Your task to perform on an android device: Go to ESPN.com Image 0: 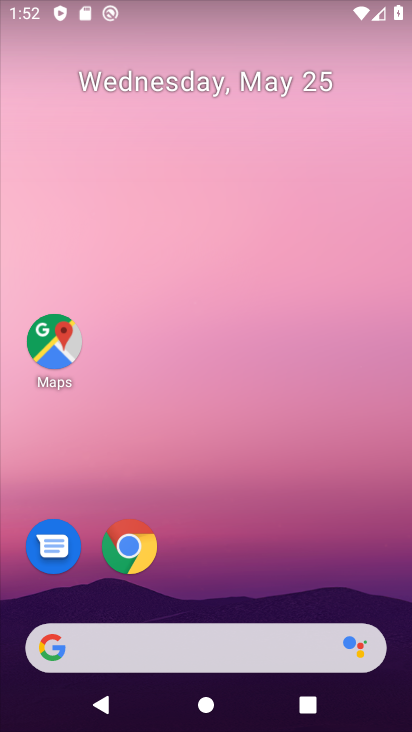
Step 0: click (130, 546)
Your task to perform on an android device: Go to ESPN.com Image 1: 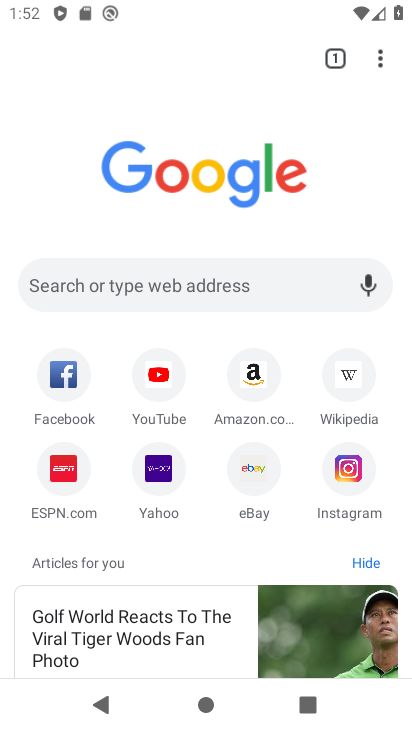
Step 1: click (192, 288)
Your task to perform on an android device: Go to ESPN.com Image 2: 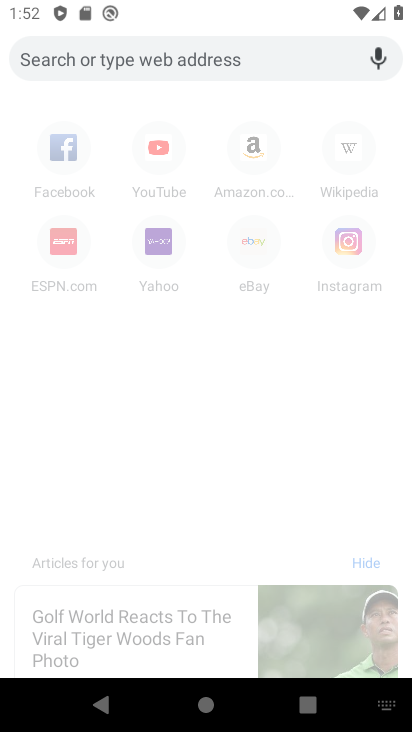
Step 2: type "ESPN.com"
Your task to perform on an android device: Go to ESPN.com Image 3: 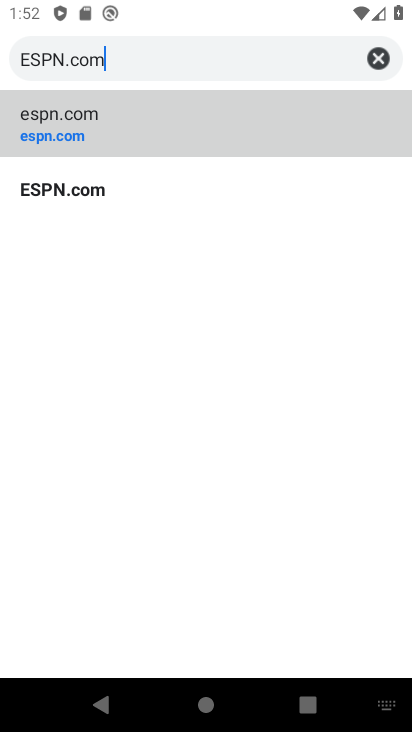
Step 3: type ""
Your task to perform on an android device: Go to ESPN.com Image 4: 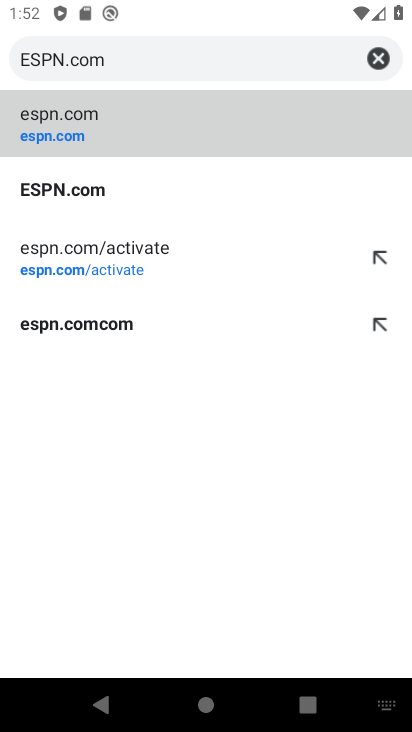
Step 4: click (33, 182)
Your task to perform on an android device: Go to ESPN.com Image 5: 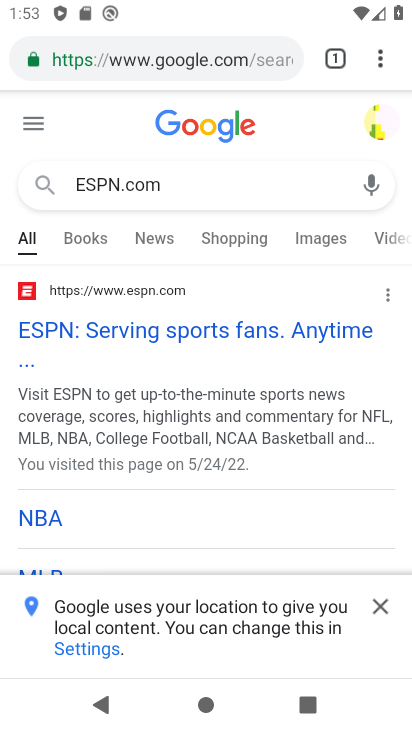
Step 5: click (142, 332)
Your task to perform on an android device: Go to ESPN.com Image 6: 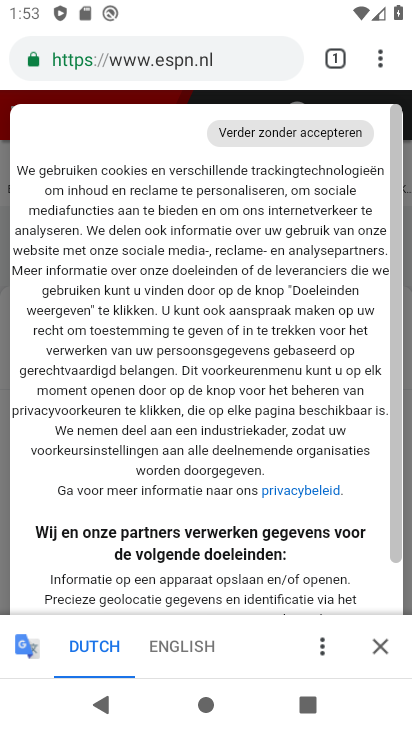
Step 6: task complete